Your task to perform on an android device: set default search engine in the chrome app Image 0: 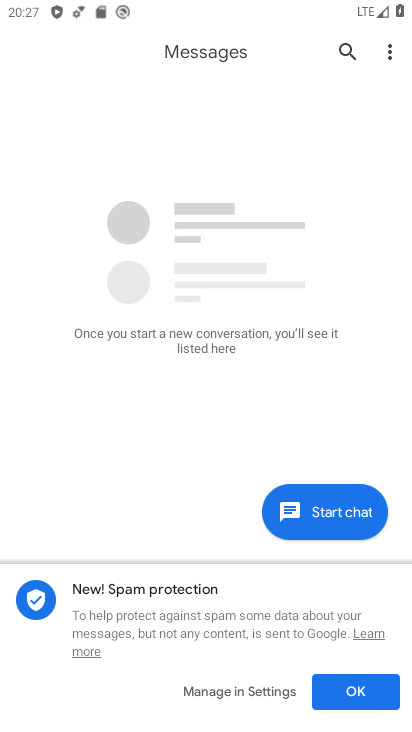
Step 0: press home button
Your task to perform on an android device: set default search engine in the chrome app Image 1: 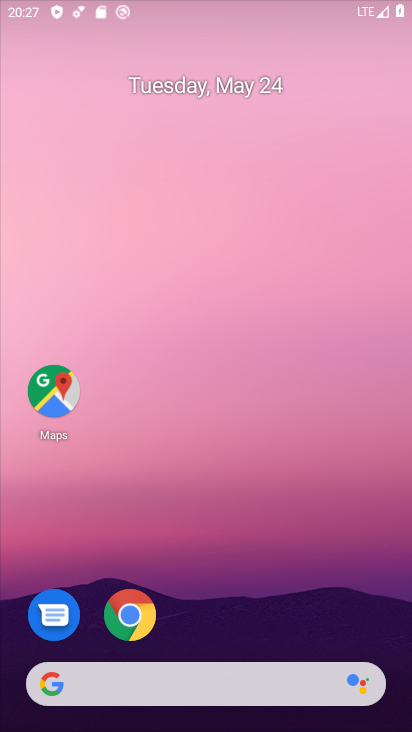
Step 1: drag from (197, 658) to (233, 0)
Your task to perform on an android device: set default search engine in the chrome app Image 2: 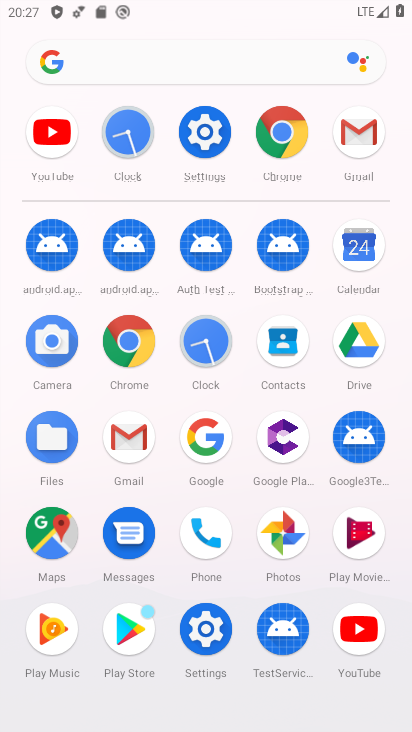
Step 2: click (274, 132)
Your task to perform on an android device: set default search engine in the chrome app Image 3: 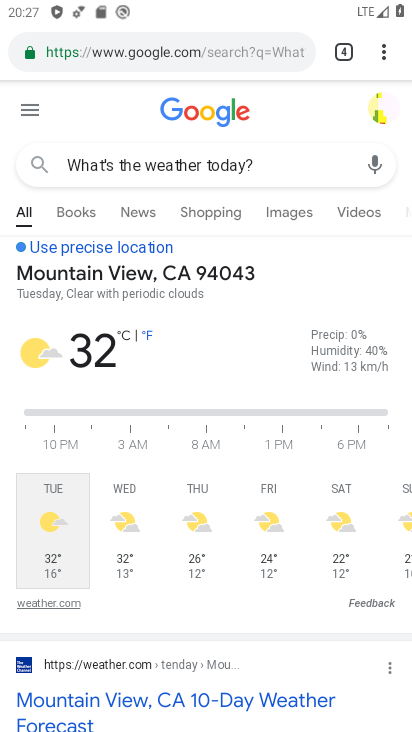
Step 3: click (381, 59)
Your task to perform on an android device: set default search engine in the chrome app Image 4: 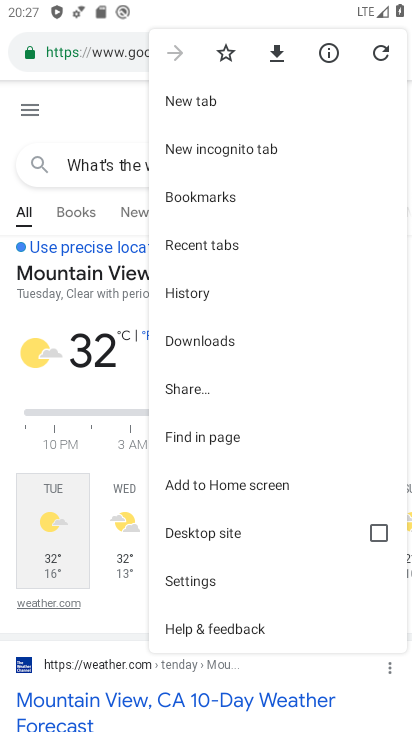
Step 4: click (207, 576)
Your task to perform on an android device: set default search engine in the chrome app Image 5: 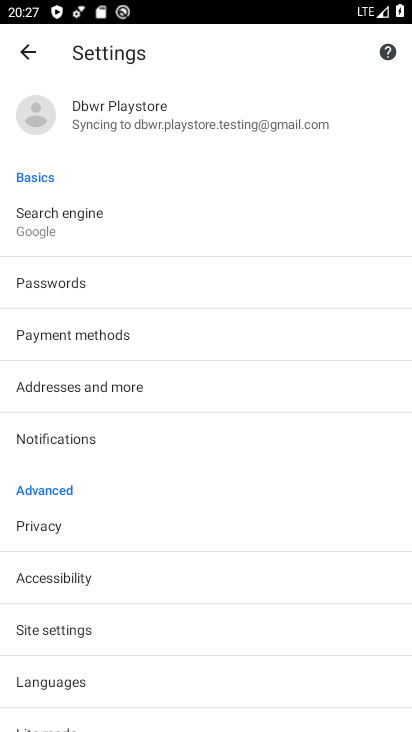
Step 5: click (88, 212)
Your task to perform on an android device: set default search engine in the chrome app Image 6: 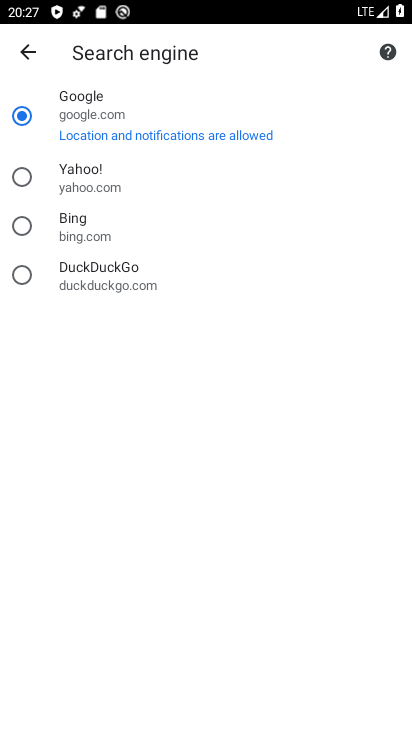
Step 6: click (75, 182)
Your task to perform on an android device: set default search engine in the chrome app Image 7: 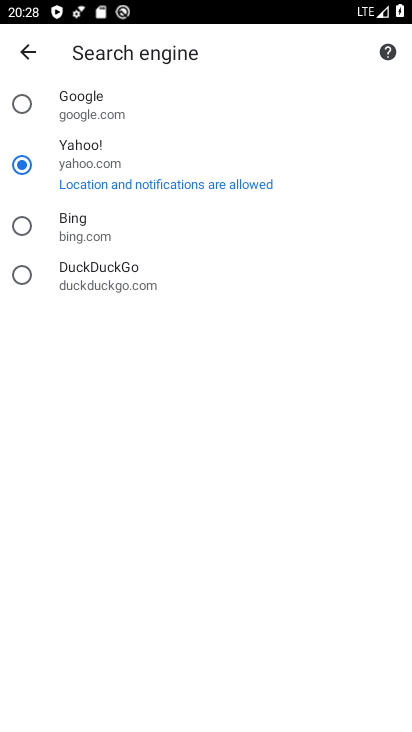
Step 7: task complete